Your task to perform on an android device: search for starred emails in the gmail app Image 0: 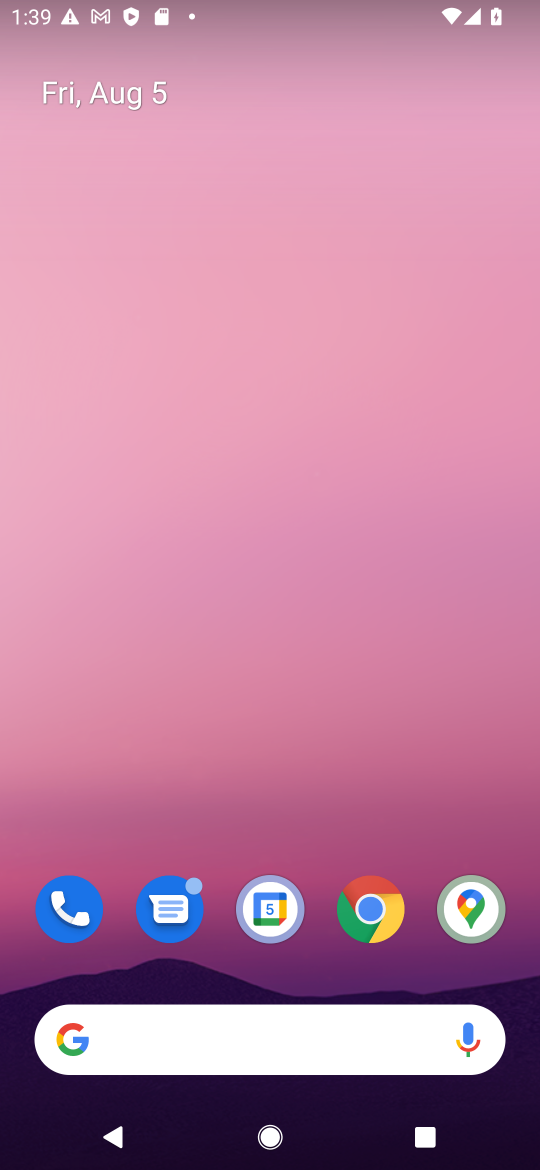
Step 0: drag from (298, 794) to (295, 291)
Your task to perform on an android device: search for starred emails in the gmail app Image 1: 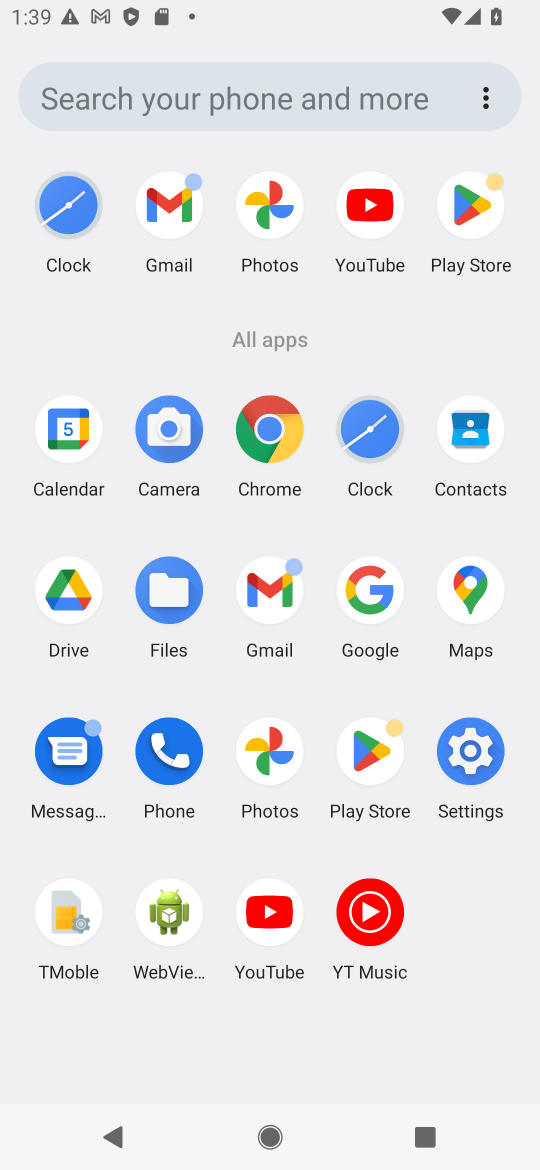
Step 1: click (167, 203)
Your task to perform on an android device: search for starred emails in the gmail app Image 2: 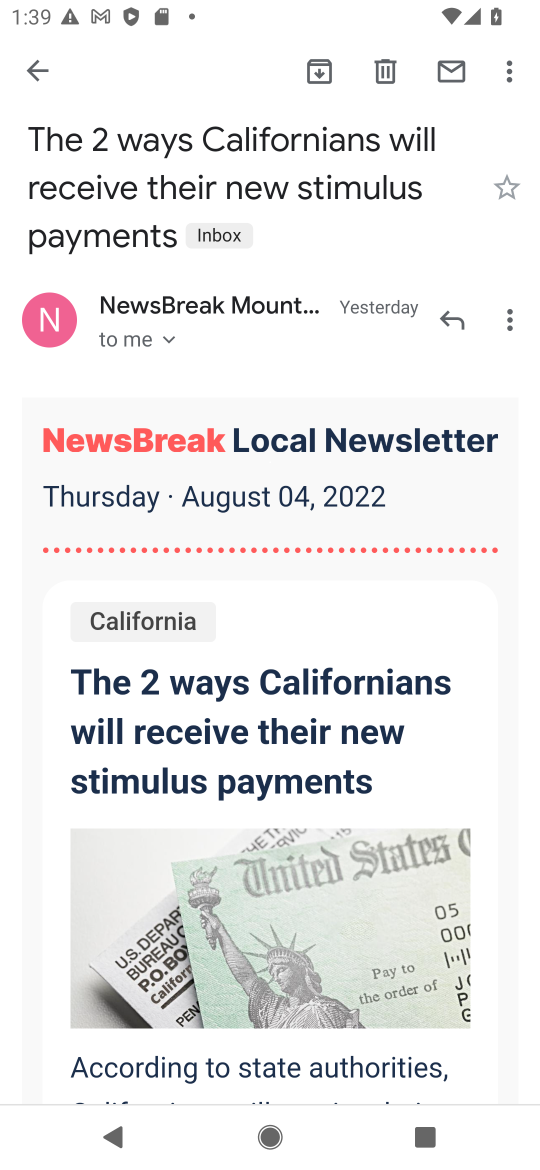
Step 2: click (43, 73)
Your task to perform on an android device: search for starred emails in the gmail app Image 3: 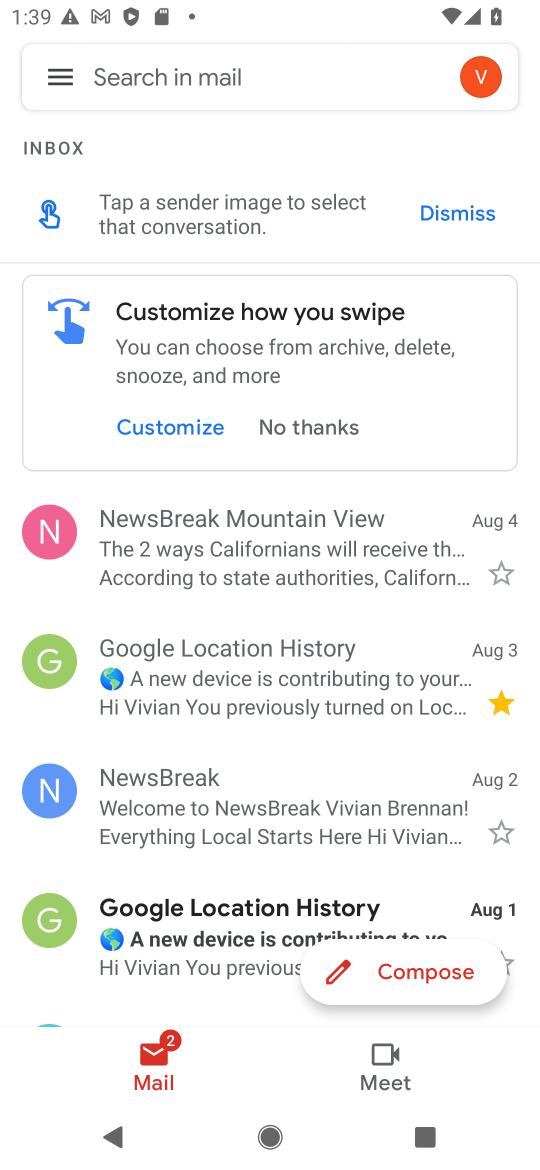
Step 3: click (60, 76)
Your task to perform on an android device: search for starred emails in the gmail app Image 4: 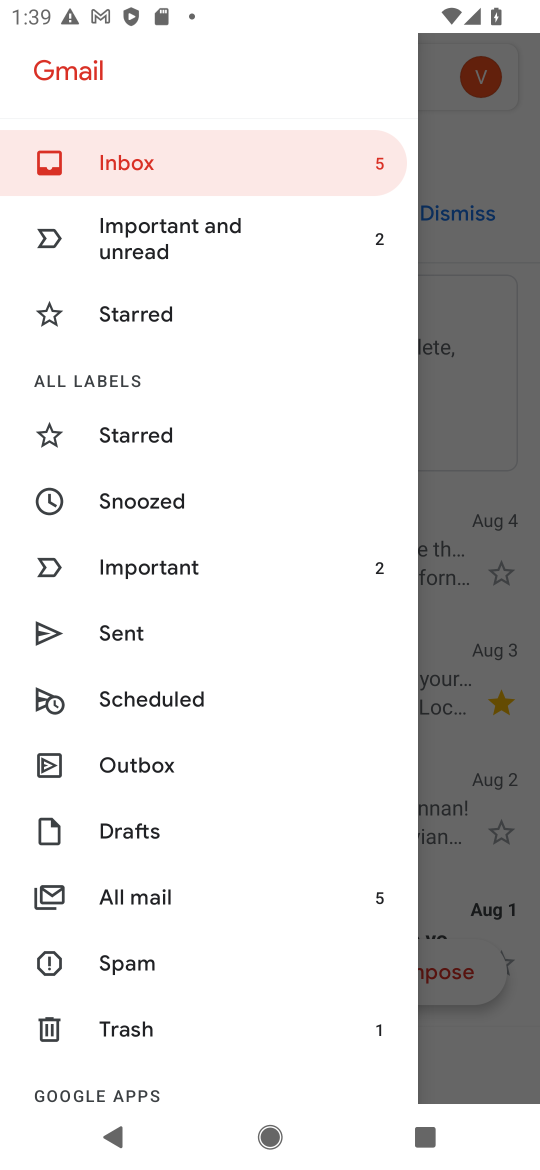
Step 4: click (139, 433)
Your task to perform on an android device: search for starred emails in the gmail app Image 5: 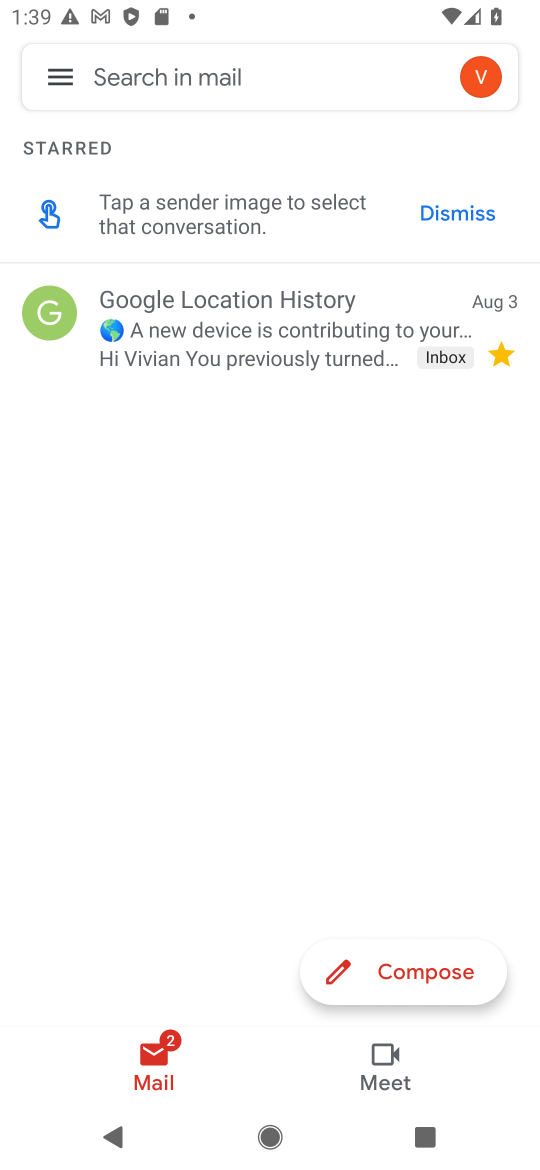
Step 5: task complete